Your task to perform on an android device: Open Google Maps and go to "Timeline" Image 0: 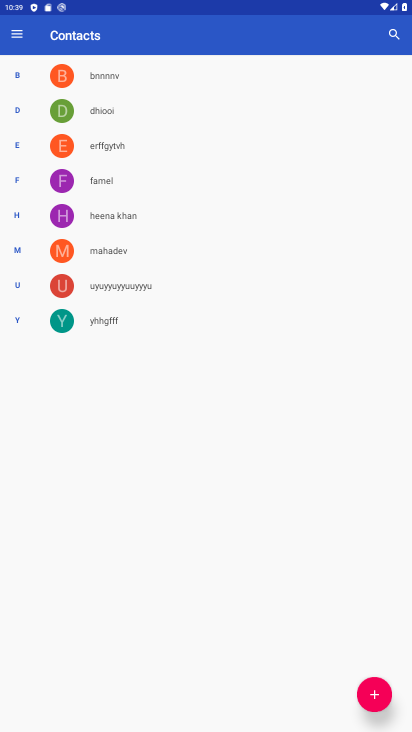
Step 0: press home button
Your task to perform on an android device: Open Google Maps and go to "Timeline" Image 1: 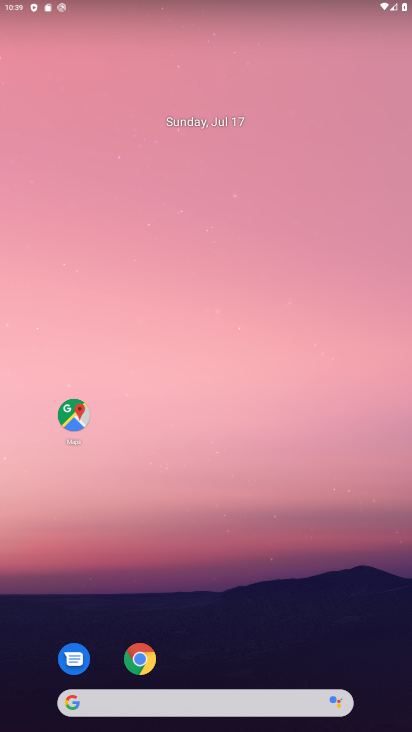
Step 1: drag from (290, 655) to (178, 106)
Your task to perform on an android device: Open Google Maps and go to "Timeline" Image 2: 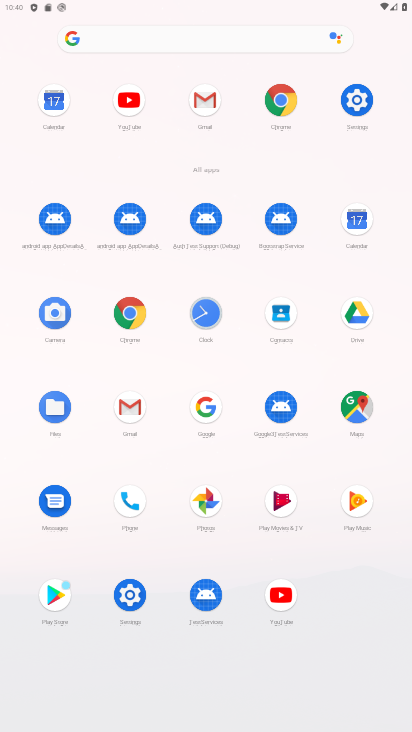
Step 2: click (357, 406)
Your task to perform on an android device: Open Google Maps and go to "Timeline" Image 3: 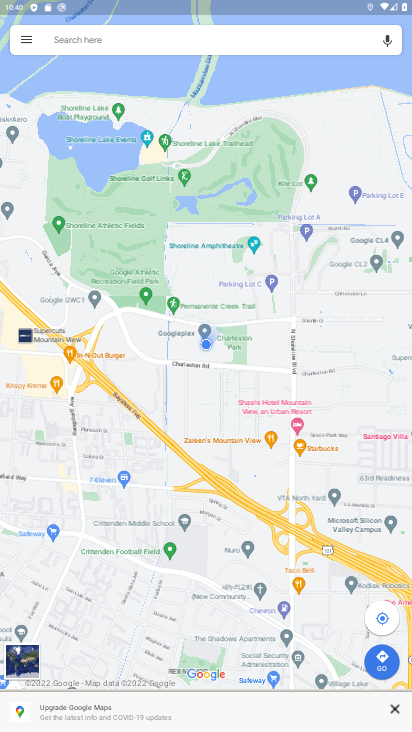
Step 3: click (25, 41)
Your task to perform on an android device: Open Google Maps and go to "Timeline" Image 4: 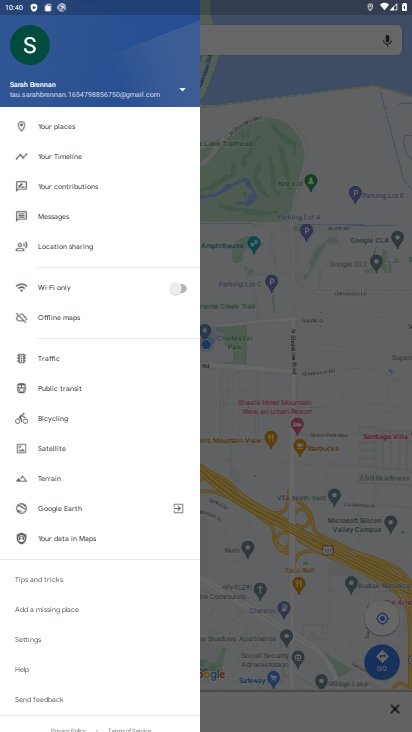
Step 4: click (58, 159)
Your task to perform on an android device: Open Google Maps and go to "Timeline" Image 5: 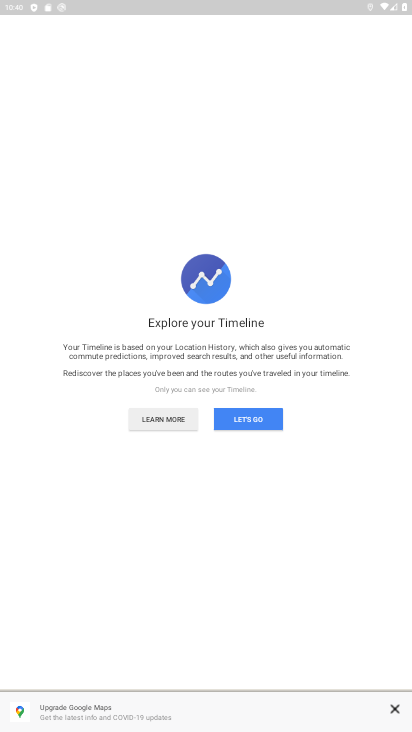
Step 5: click (247, 418)
Your task to perform on an android device: Open Google Maps and go to "Timeline" Image 6: 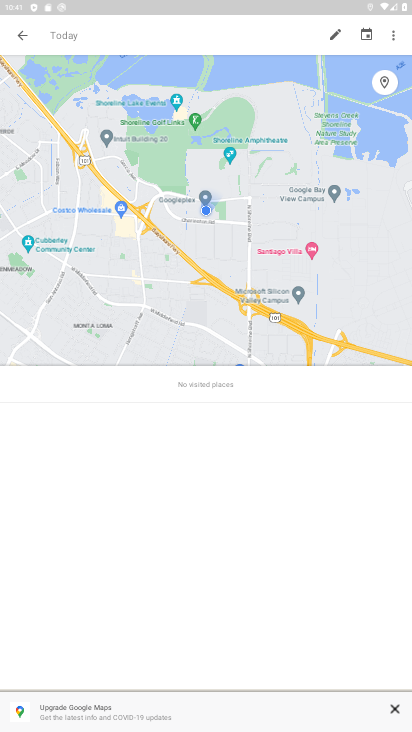
Step 6: task complete